Your task to perform on an android device: Search for seafood restaurants on Google Maps Image 0: 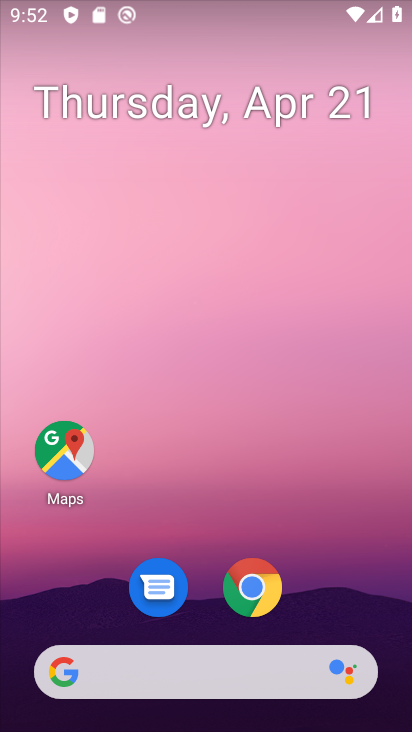
Step 0: drag from (325, 535) to (357, 71)
Your task to perform on an android device: Search for seafood restaurants on Google Maps Image 1: 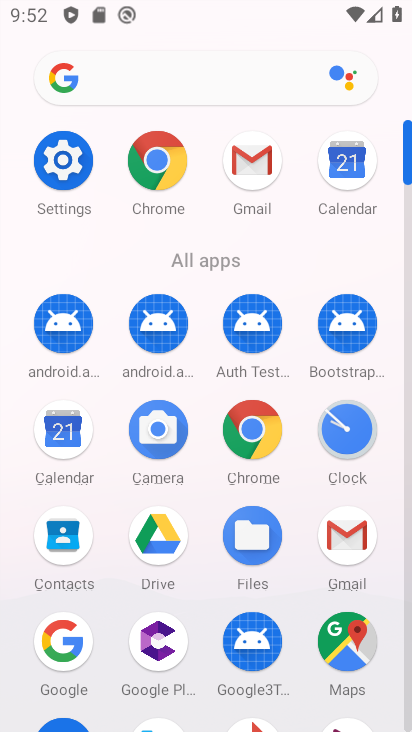
Step 1: click (355, 655)
Your task to perform on an android device: Search for seafood restaurants on Google Maps Image 2: 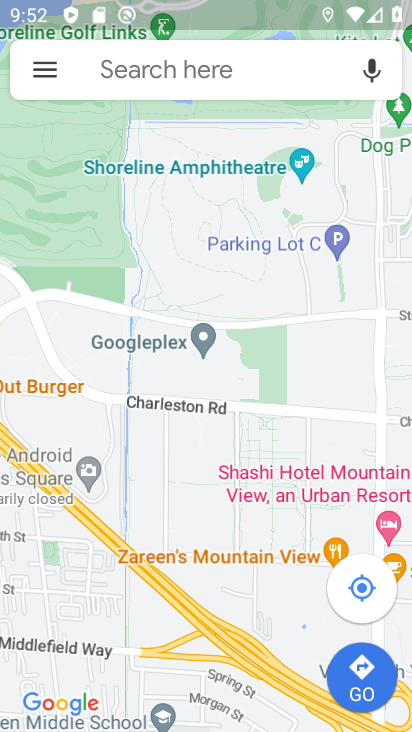
Step 2: click (228, 85)
Your task to perform on an android device: Search for seafood restaurants on Google Maps Image 3: 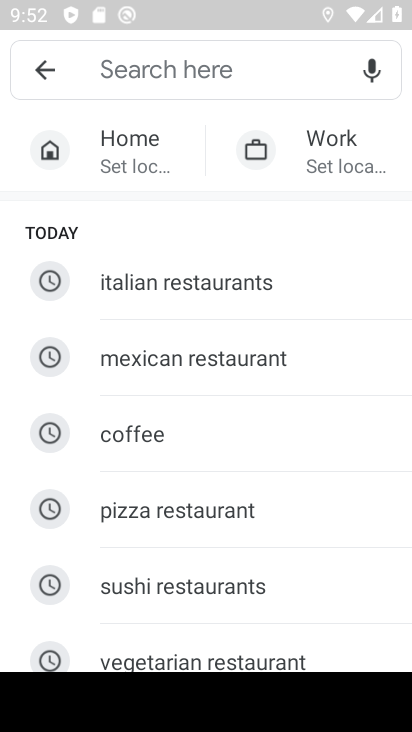
Step 3: type "seafood restaurants"
Your task to perform on an android device: Search for seafood restaurants on Google Maps Image 4: 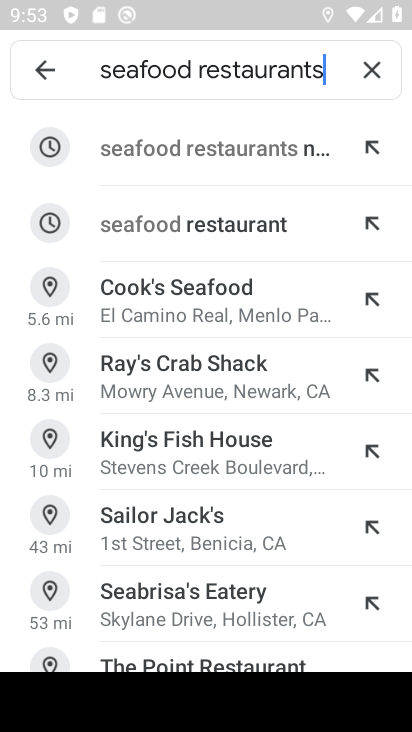
Step 4: click (223, 141)
Your task to perform on an android device: Search for seafood restaurants on Google Maps Image 5: 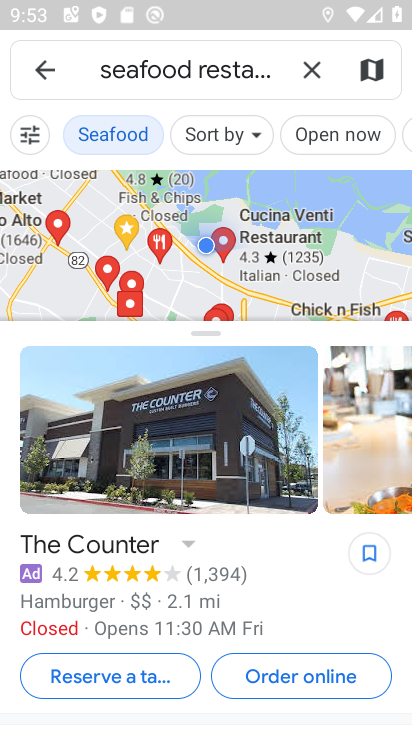
Step 5: task complete